Your task to perform on an android device: Open Yahoo.com Image 0: 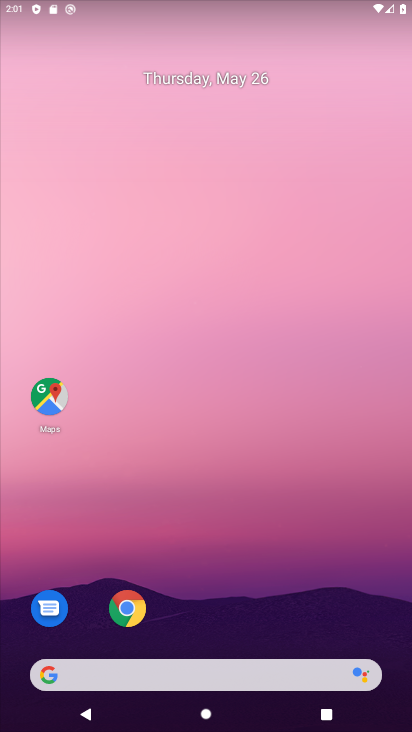
Step 0: drag from (250, 422) to (250, 11)
Your task to perform on an android device: Open Yahoo.com Image 1: 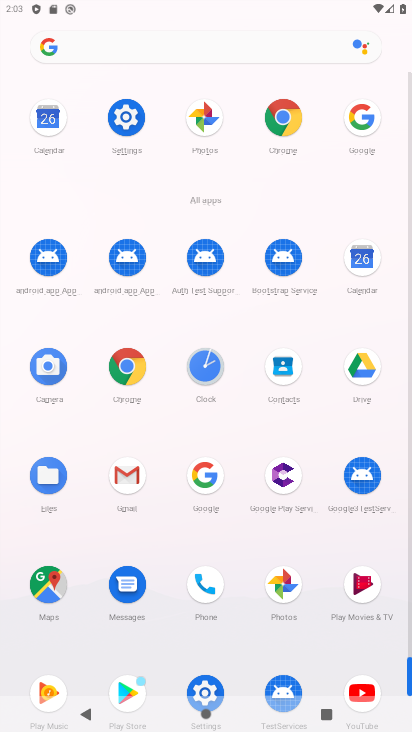
Step 1: click (288, 128)
Your task to perform on an android device: Open Yahoo.com Image 2: 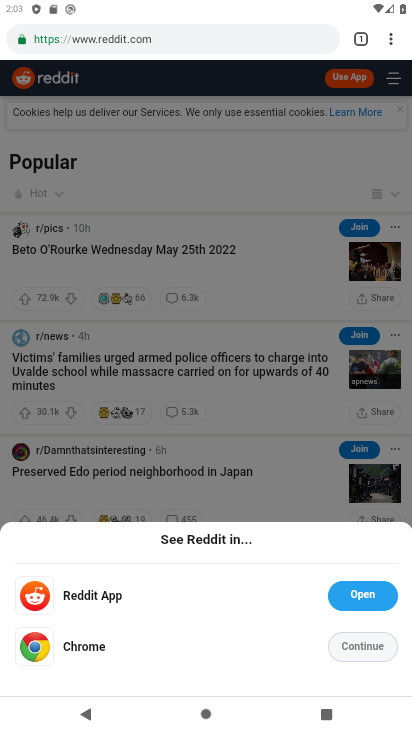
Step 2: click (159, 48)
Your task to perform on an android device: Open Yahoo.com Image 3: 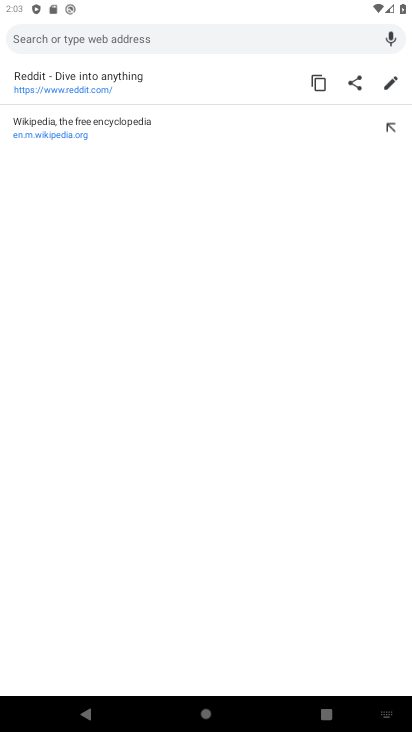
Step 3: type "yahoo"
Your task to perform on an android device: Open Yahoo.com Image 4: 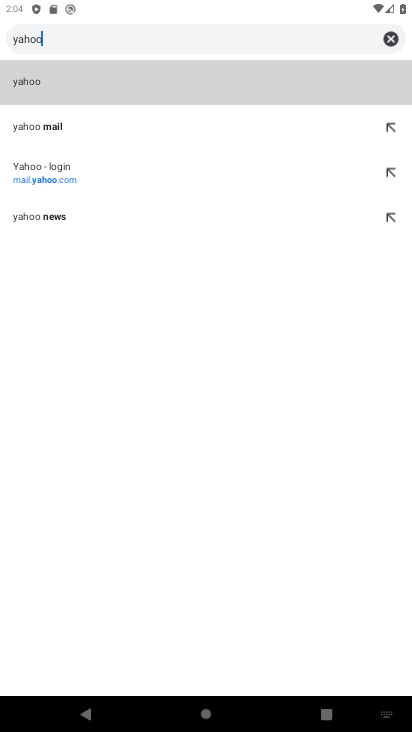
Step 4: click (48, 179)
Your task to perform on an android device: Open Yahoo.com Image 5: 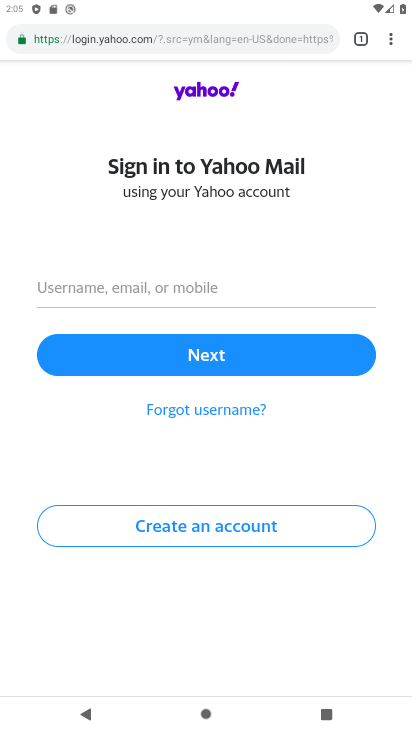
Step 5: task complete